Your task to perform on an android device: Go to Maps Image 0: 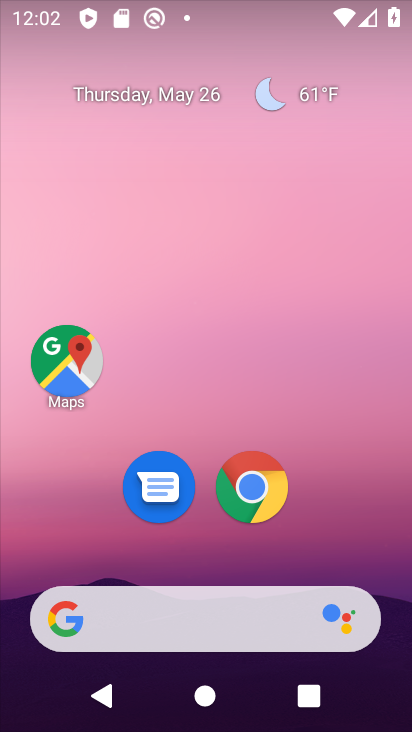
Step 0: drag from (265, 681) to (183, 272)
Your task to perform on an android device: Go to Maps Image 1: 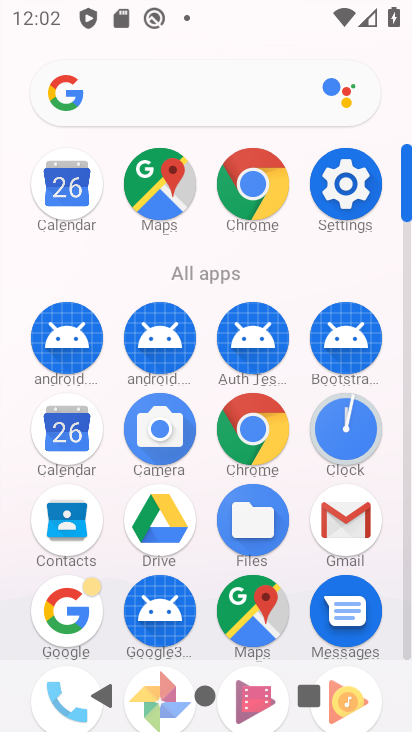
Step 1: click (236, 598)
Your task to perform on an android device: Go to Maps Image 2: 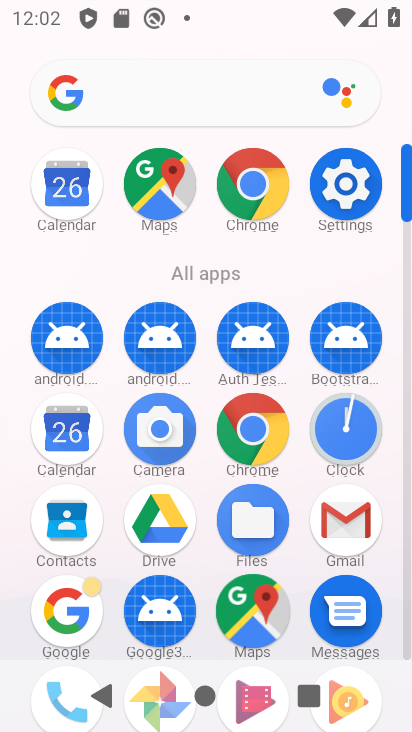
Step 2: click (248, 593)
Your task to perform on an android device: Go to Maps Image 3: 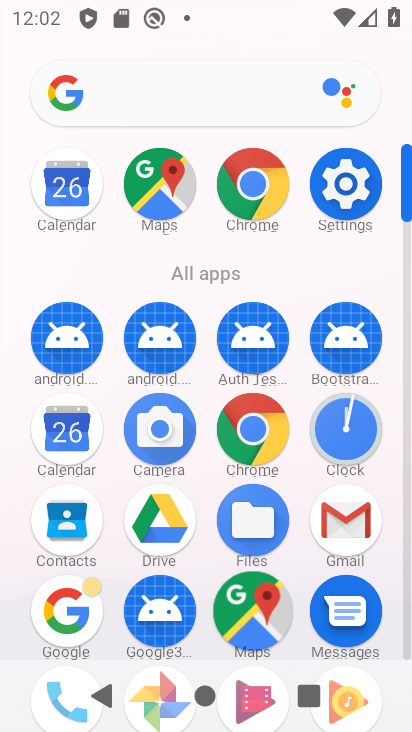
Step 3: click (248, 593)
Your task to perform on an android device: Go to Maps Image 4: 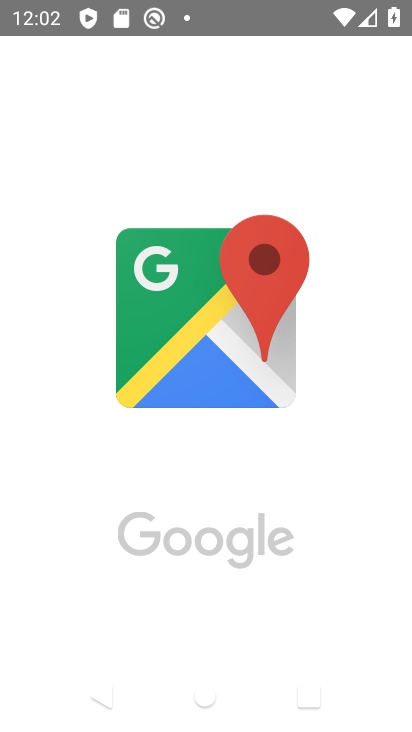
Step 4: click (254, 610)
Your task to perform on an android device: Go to Maps Image 5: 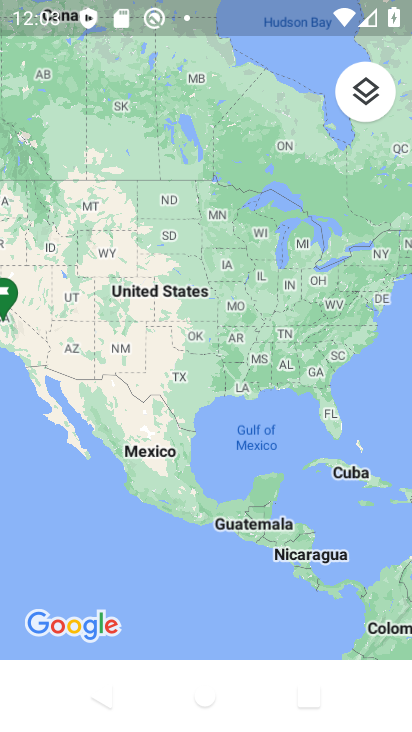
Step 5: task complete